Your task to perform on an android device: Go to notification settings Image 0: 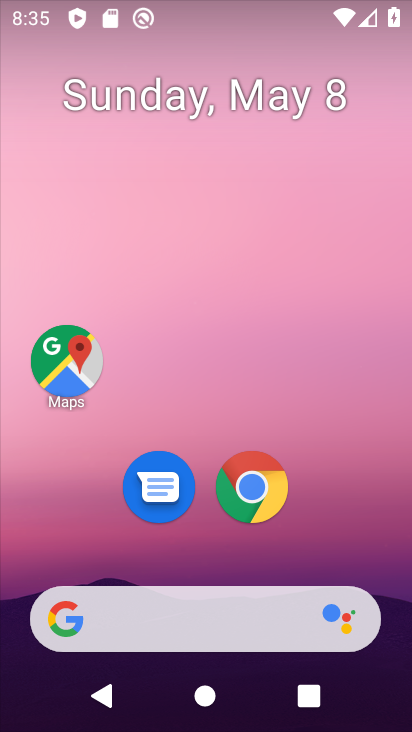
Step 0: drag from (202, 557) to (205, 142)
Your task to perform on an android device: Go to notification settings Image 1: 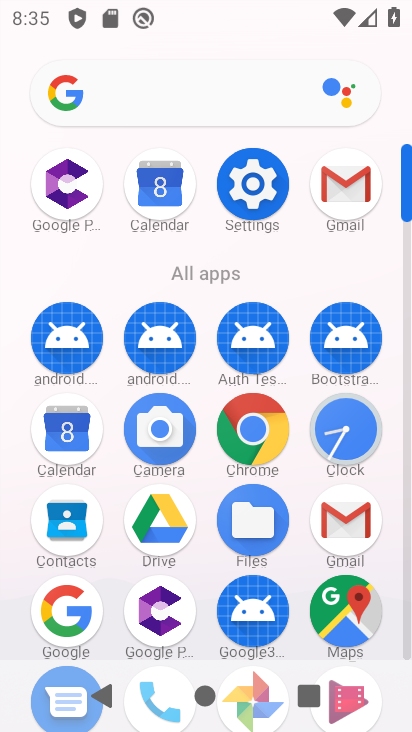
Step 1: click (218, 180)
Your task to perform on an android device: Go to notification settings Image 2: 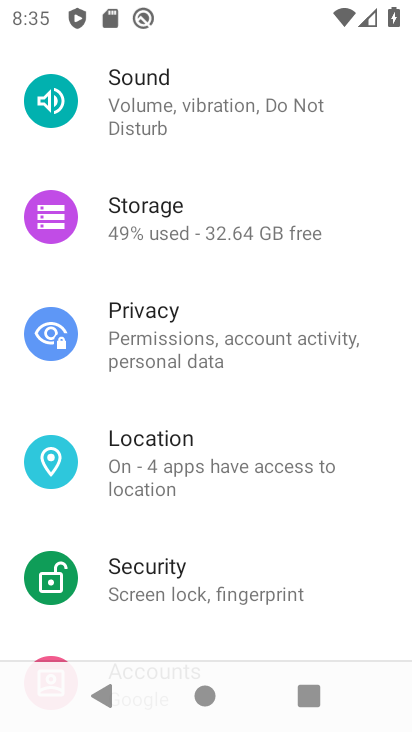
Step 2: drag from (220, 238) to (220, 581)
Your task to perform on an android device: Go to notification settings Image 3: 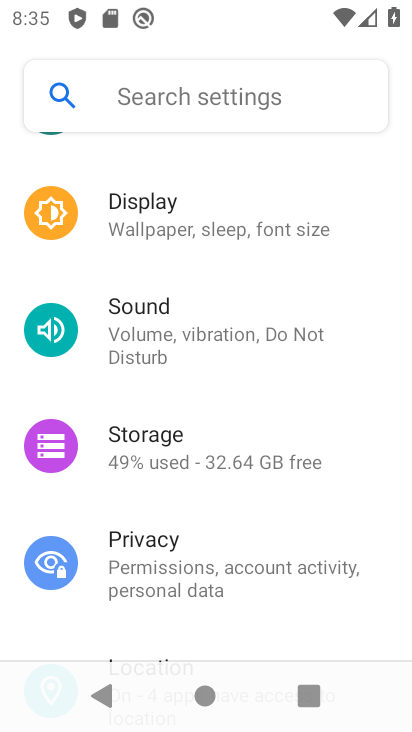
Step 3: drag from (206, 220) to (197, 576)
Your task to perform on an android device: Go to notification settings Image 4: 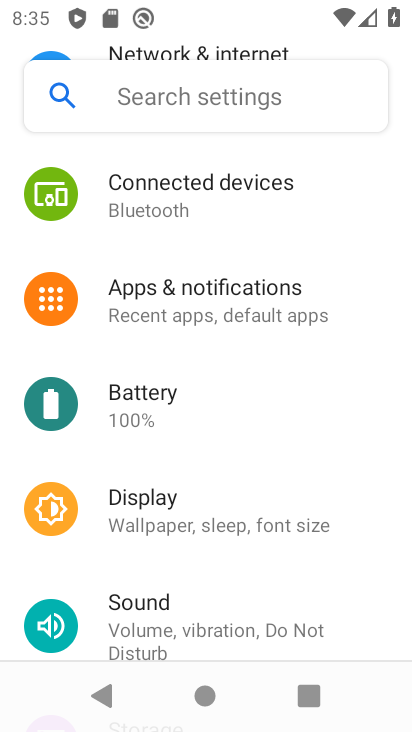
Step 4: click (210, 305)
Your task to perform on an android device: Go to notification settings Image 5: 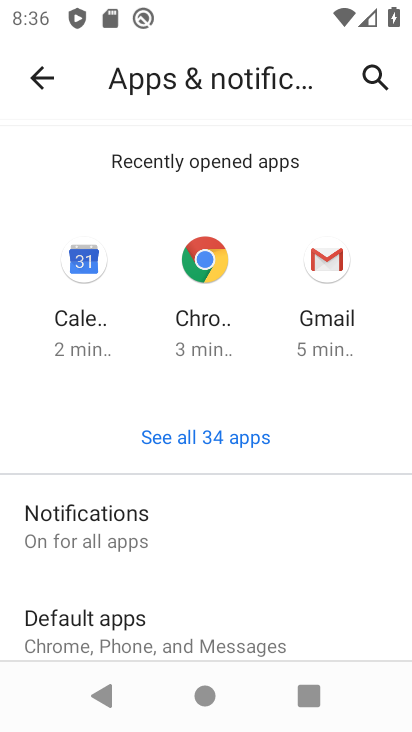
Step 5: click (150, 522)
Your task to perform on an android device: Go to notification settings Image 6: 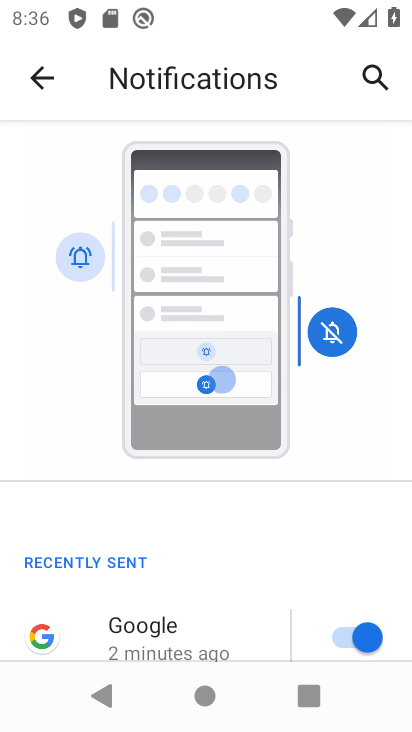
Step 6: task complete